Your task to perform on an android device: turn off airplane mode Image 0: 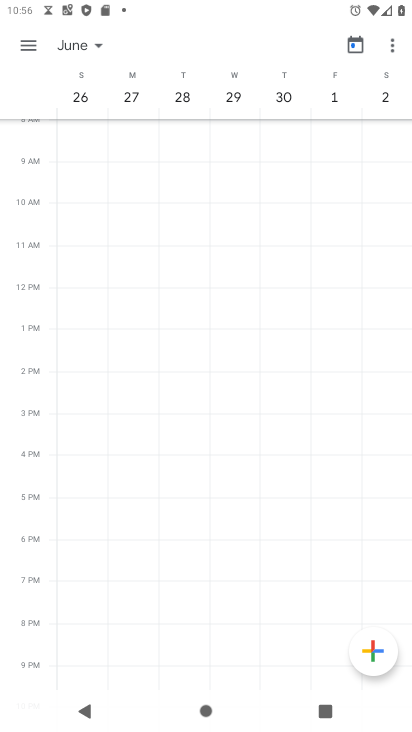
Step 0: press back button
Your task to perform on an android device: turn off airplane mode Image 1: 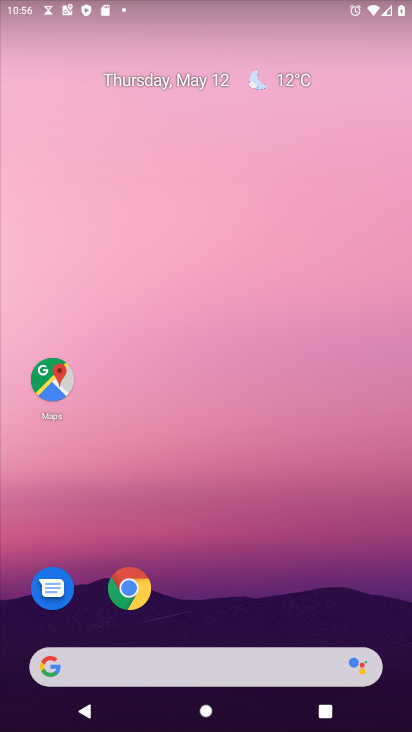
Step 1: drag from (230, 569) to (207, 93)
Your task to perform on an android device: turn off airplane mode Image 2: 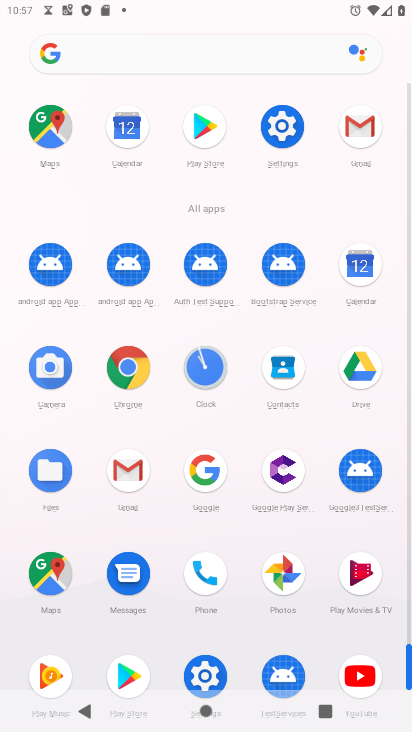
Step 2: click (281, 127)
Your task to perform on an android device: turn off airplane mode Image 3: 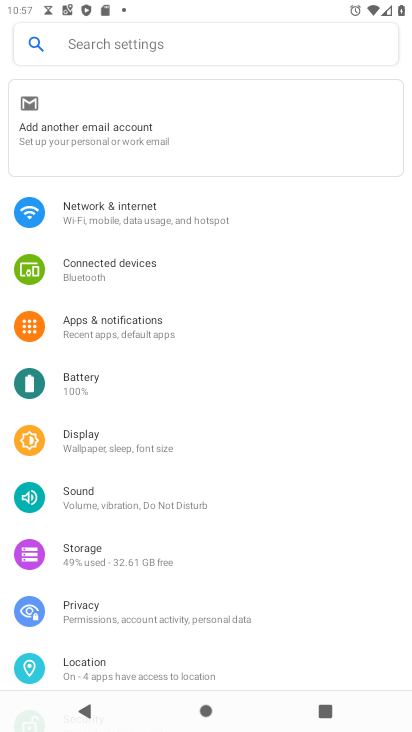
Step 3: click (109, 219)
Your task to perform on an android device: turn off airplane mode Image 4: 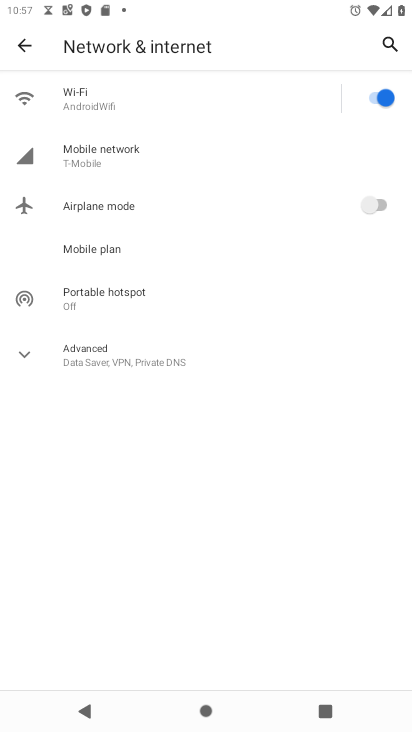
Step 4: task complete